Your task to perform on an android device: What's on the menu at Papa Murphy's? Image 0: 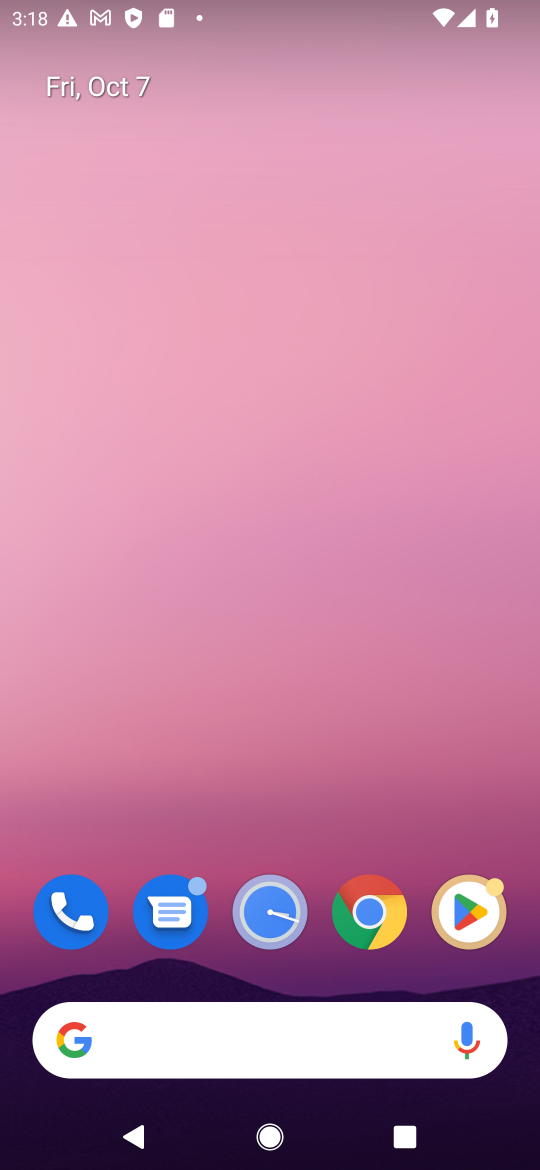
Step 0: drag from (250, 960) to (270, 271)
Your task to perform on an android device: What's on the menu at Papa Murphy's? Image 1: 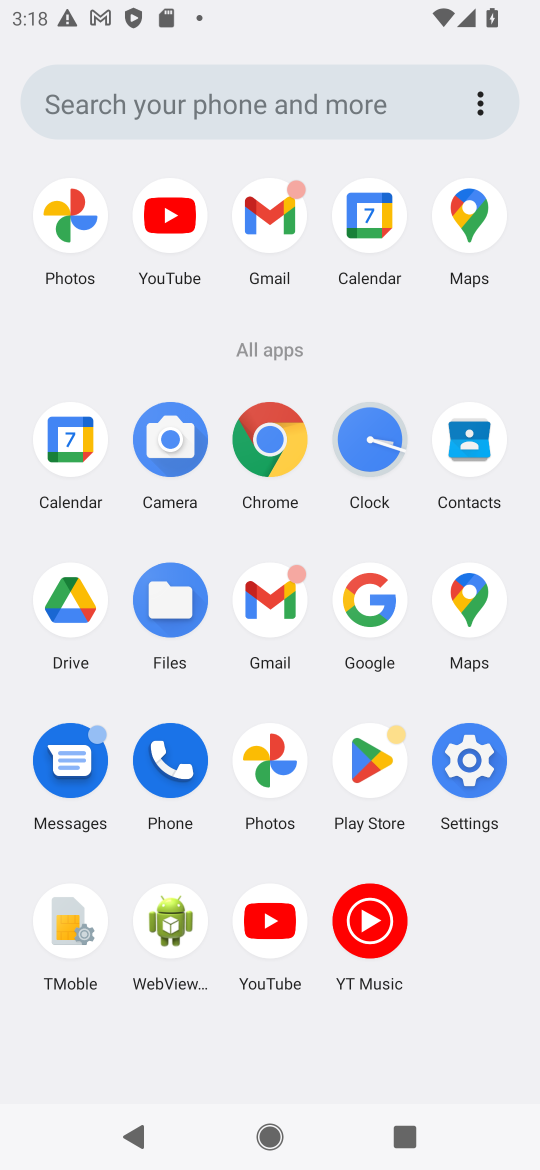
Step 1: click (375, 575)
Your task to perform on an android device: What's on the menu at Papa Murphy's? Image 2: 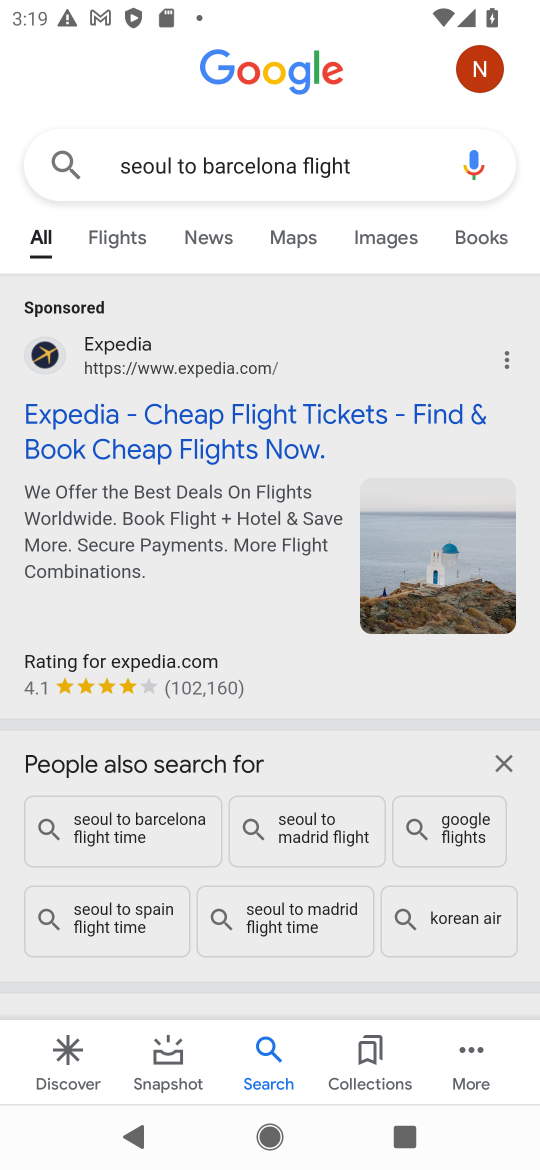
Step 2: click (368, 168)
Your task to perform on an android device: What's on the menu at Papa Murphy's? Image 3: 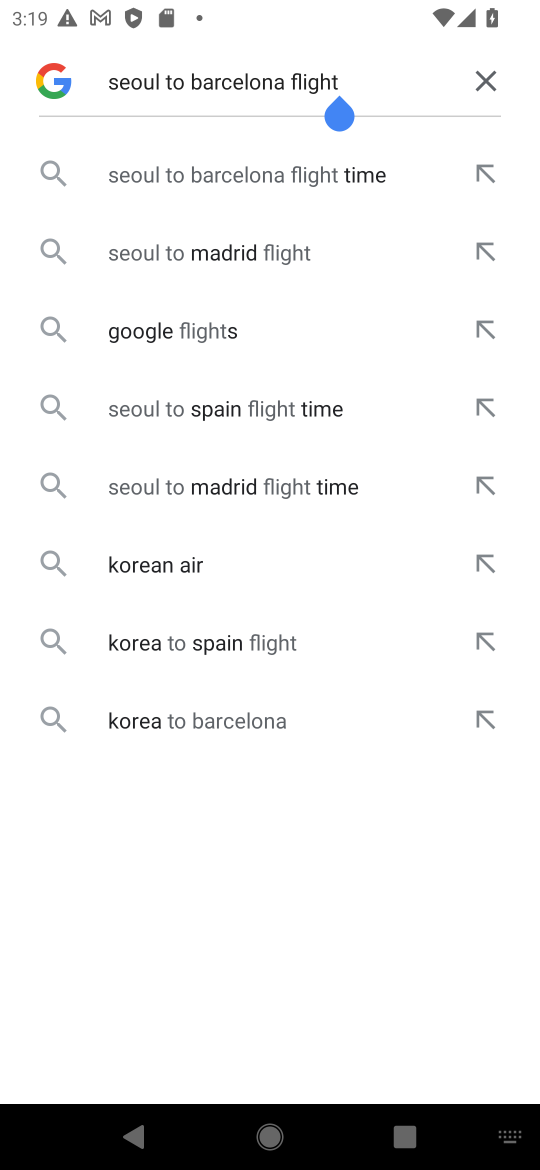
Step 3: click (477, 68)
Your task to perform on an android device: What's on the menu at Papa Murphy's? Image 4: 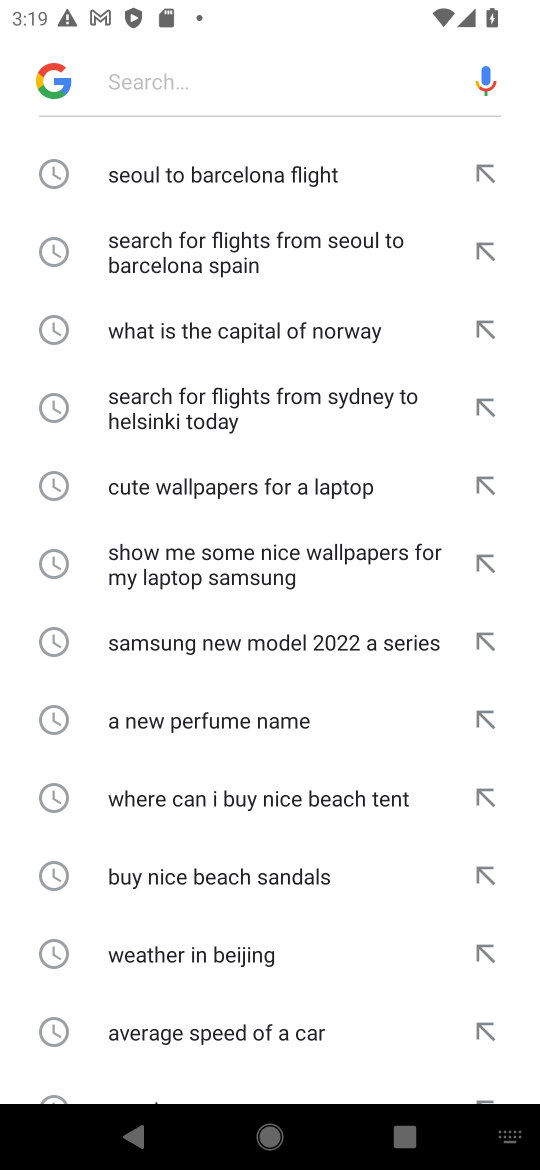
Step 4: click (157, 51)
Your task to perform on an android device: What's on the menu at Papa Murphy's? Image 5: 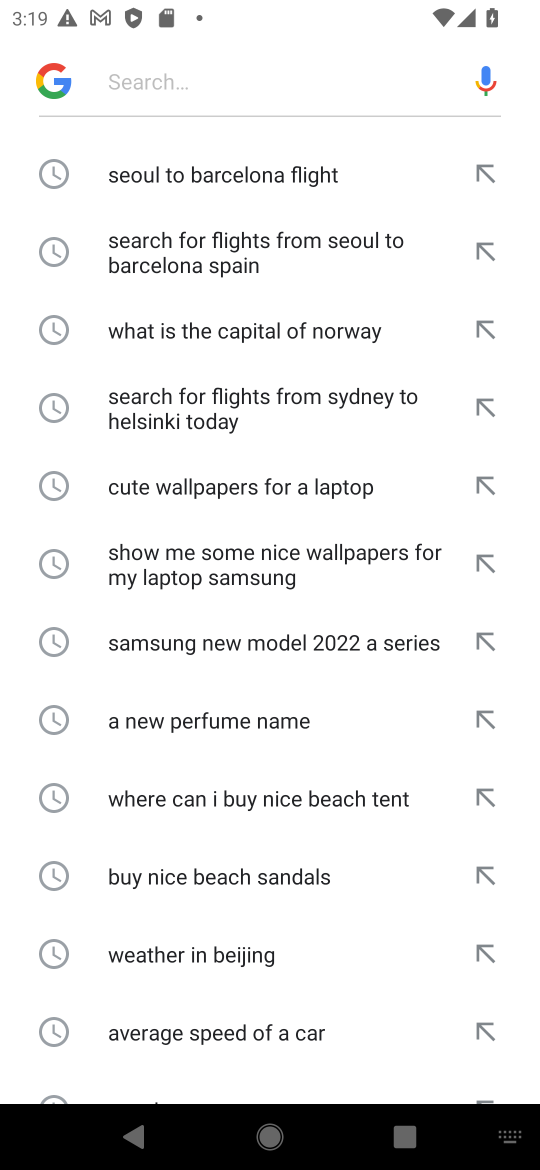
Step 5: type "What's on the menu at Papa Murphy's? "
Your task to perform on an android device: What's on the menu at Papa Murphy's? Image 6: 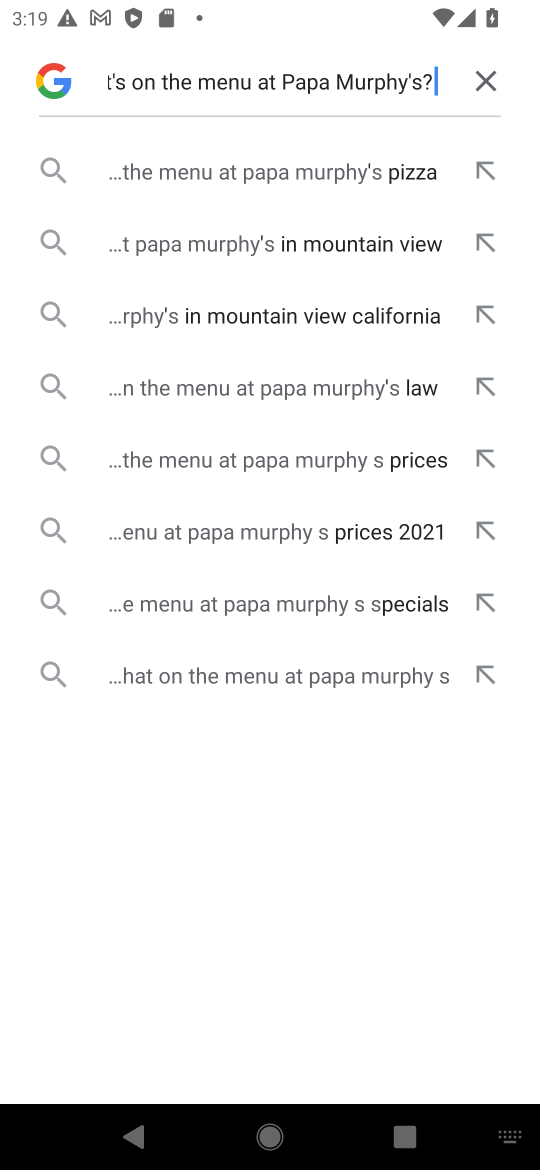
Step 6: drag from (232, 231) to (516, 213)
Your task to perform on an android device: What's on the menu at Papa Murphy's? Image 7: 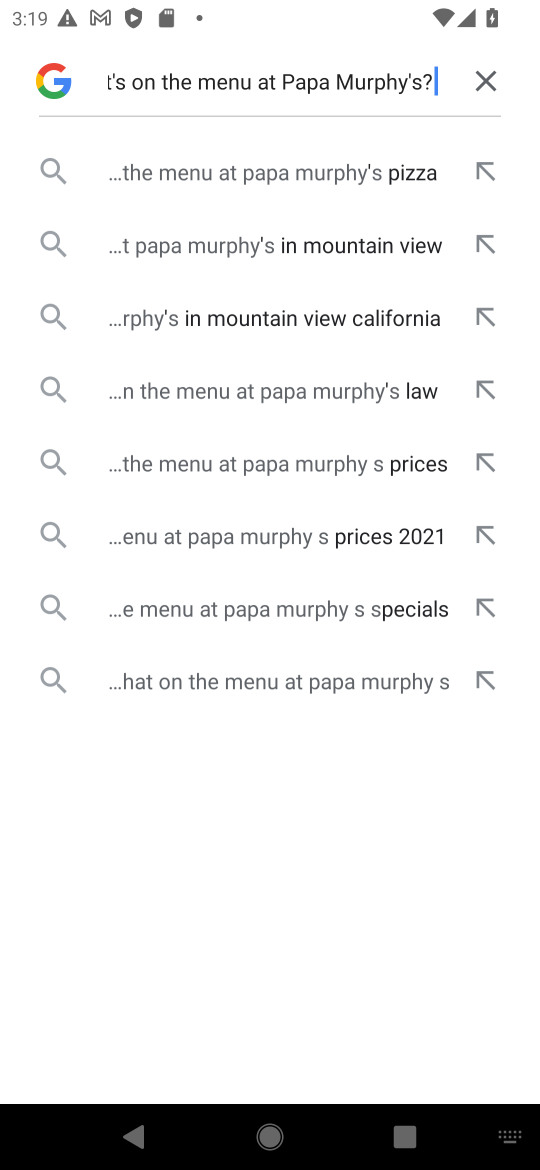
Step 7: click (446, 71)
Your task to perform on an android device: What's on the menu at Papa Murphy's? Image 8: 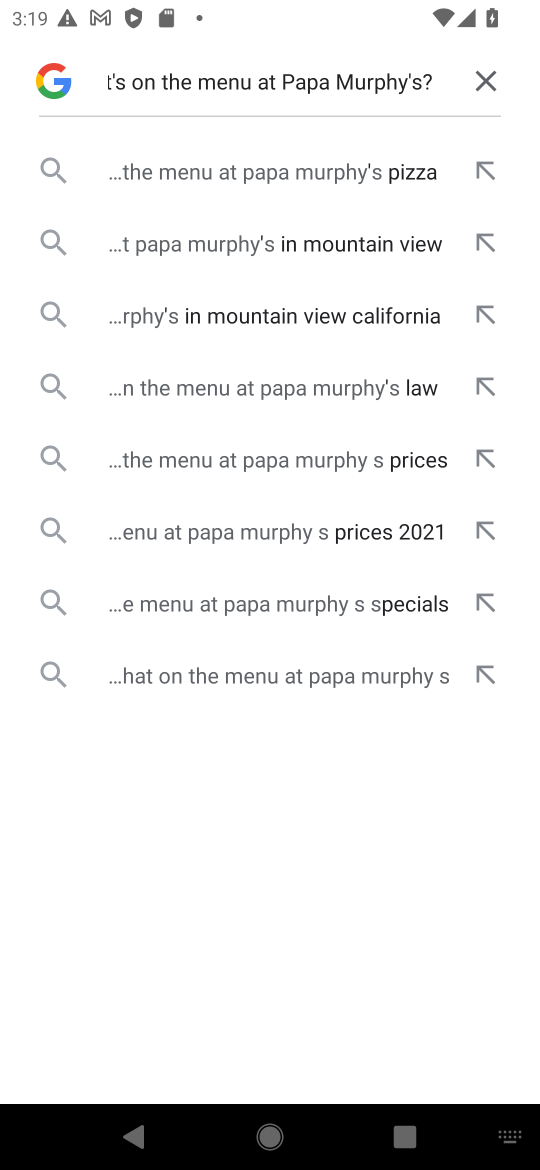
Step 8: click (434, 83)
Your task to perform on an android device: What's on the menu at Papa Murphy's? Image 9: 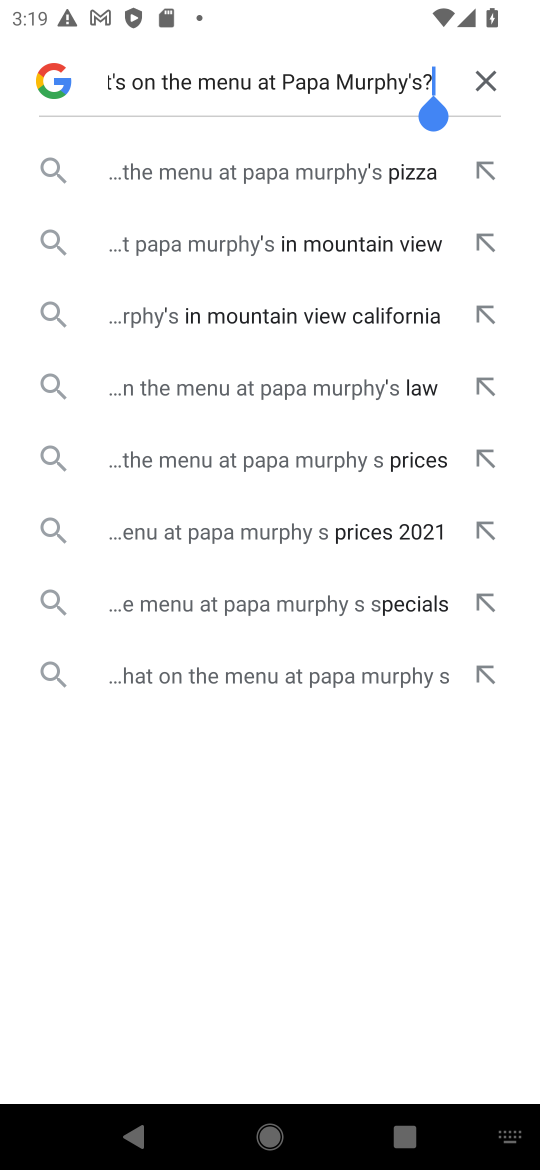
Step 9: click (466, 80)
Your task to perform on an android device: What's on the menu at Papa Murphy's? Image 10: 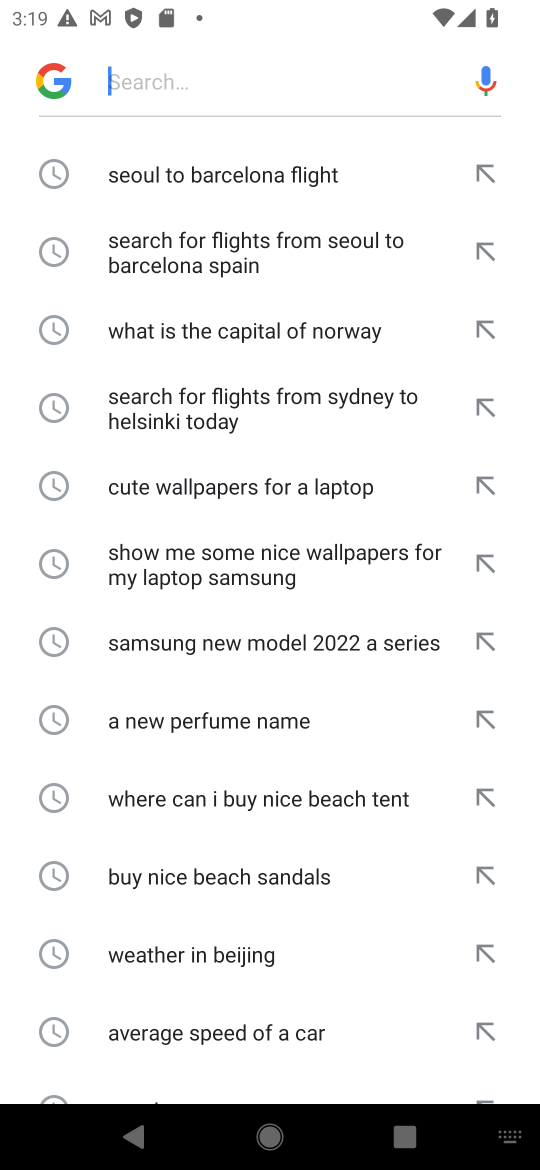
Step 10: click (298, 91)
Your task to perform on an android device: What's on the menu at Papa Murphy's? Image 11: 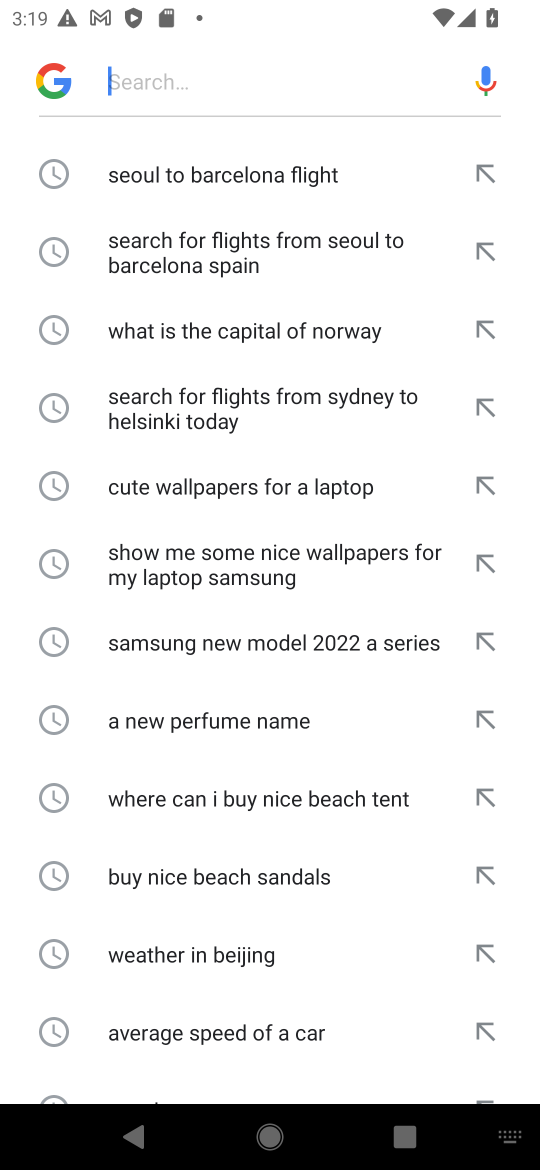
Step 11: type "What's on the menu at Papa Murphy's "
Your task to perform on an android device: What's on the menu at Papa Murphy's? Image 12: 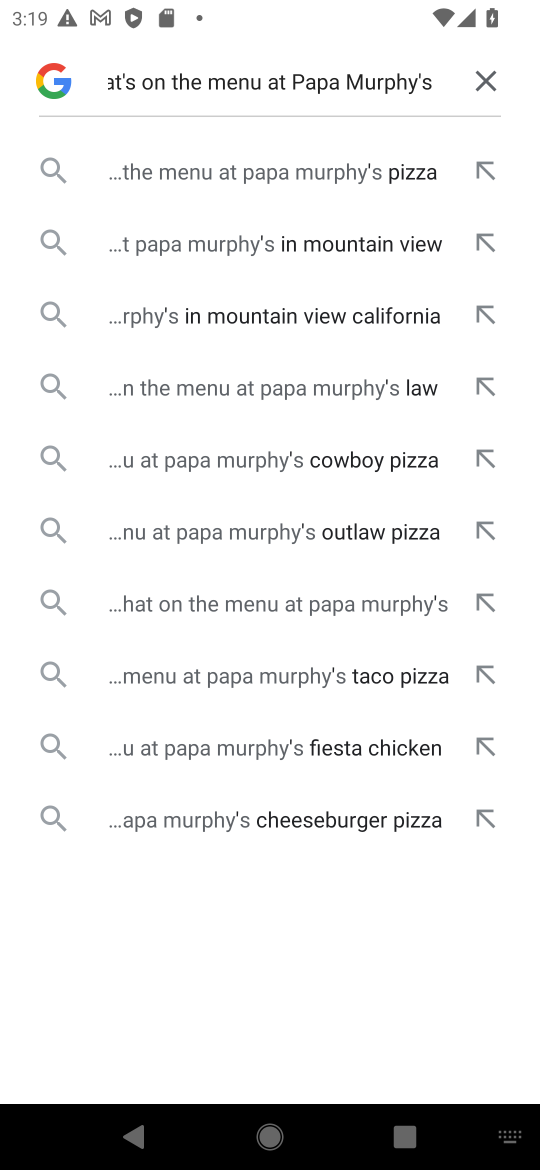
Step 12: click (219, 167)
Your task to perform on an android device: What's on the menu at Papa Murphy's? Image 13: 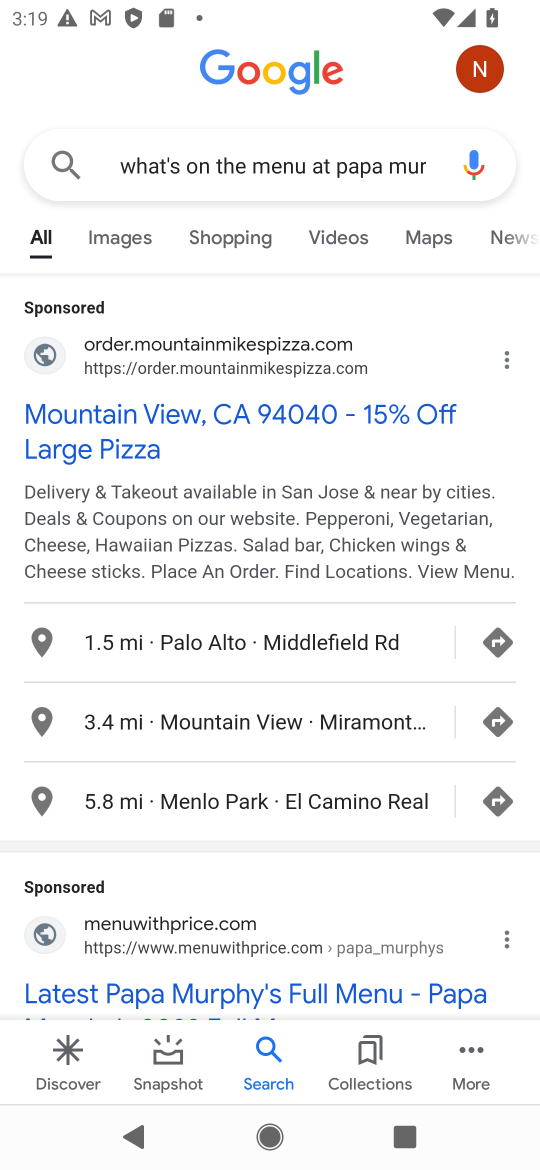
Step 13: drag from (166, 921) to (197, 645)
Your task to perform on an android device: What's on the menu at Papa Murphy's? Image 14: 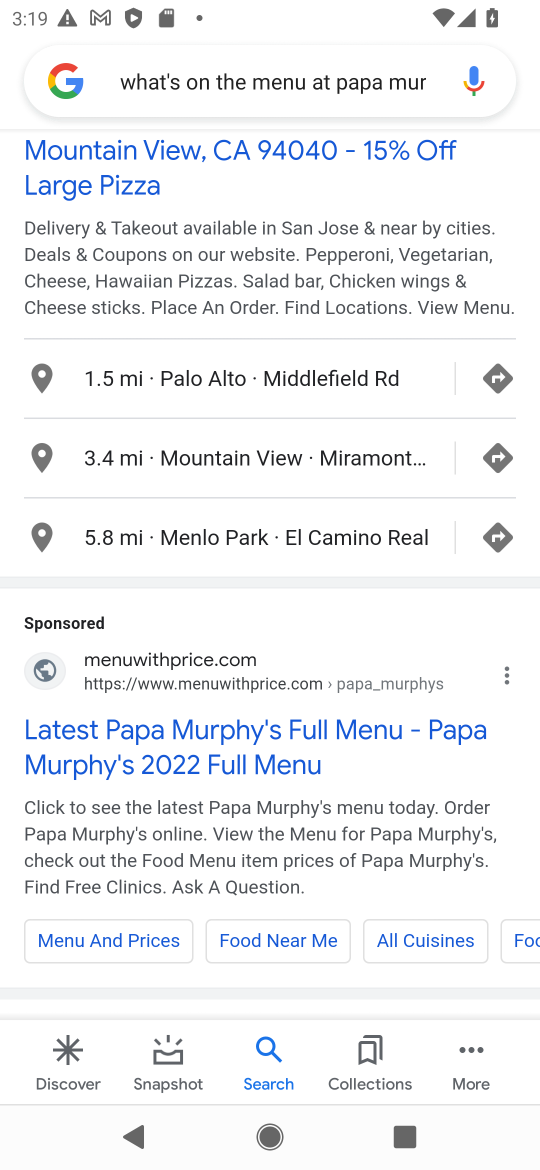
Step 14: click (188, 750)
Your task to perform on an android device: What's on the menu at Papa Murphy's? Image 15: 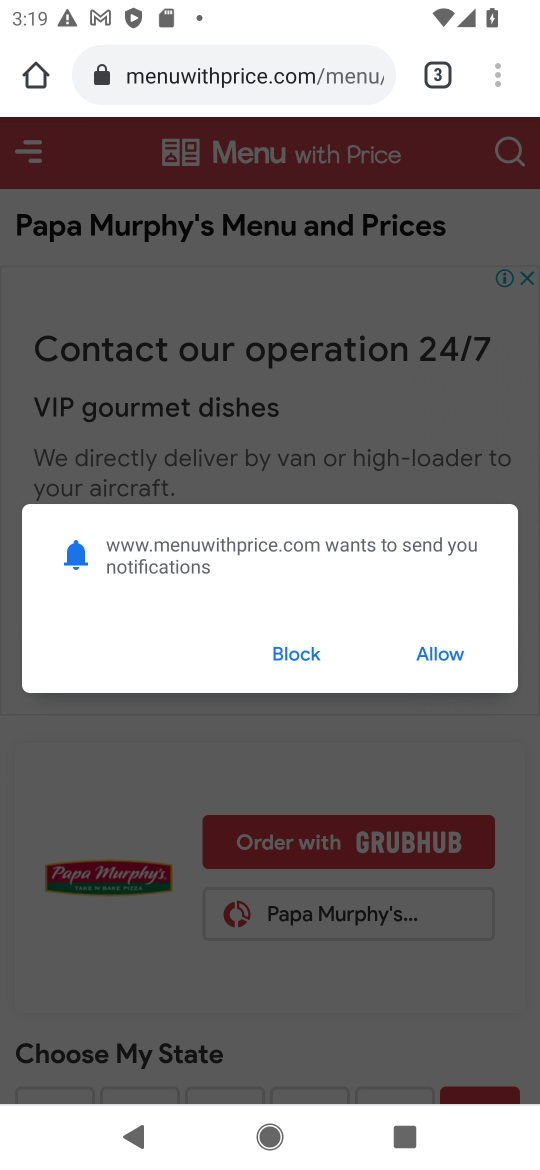
Step 15: drag from (160, 1054) to (293, 719)
Your task to perform on an android device: What's on the menu at Papa Murphy's? Image 16: 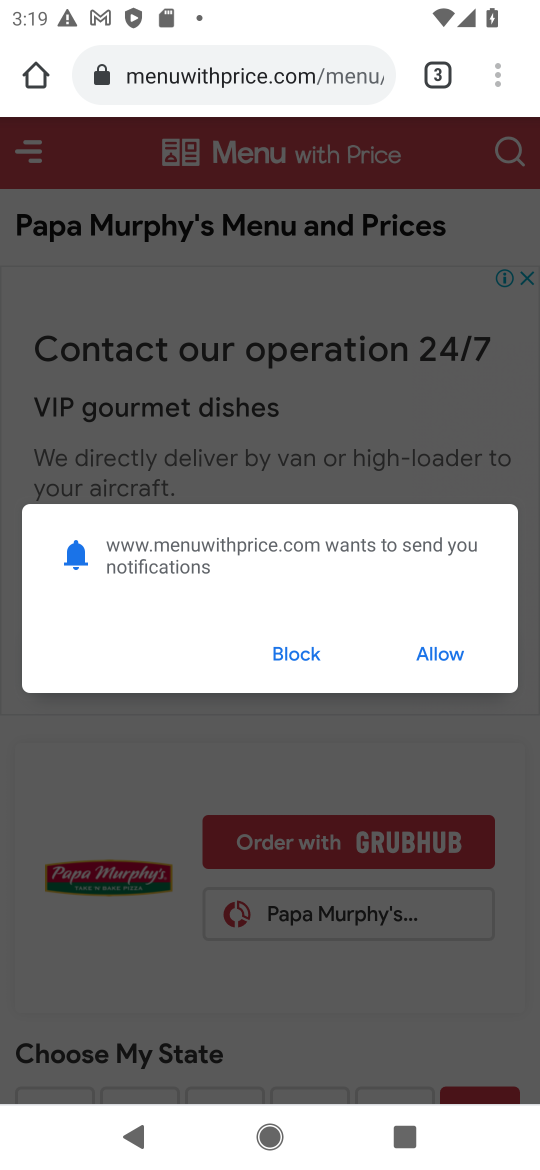
Step 16: click (450, 643)
Your task to perform on an android device: What's on the menu at Papa Murphy's? Image 17: 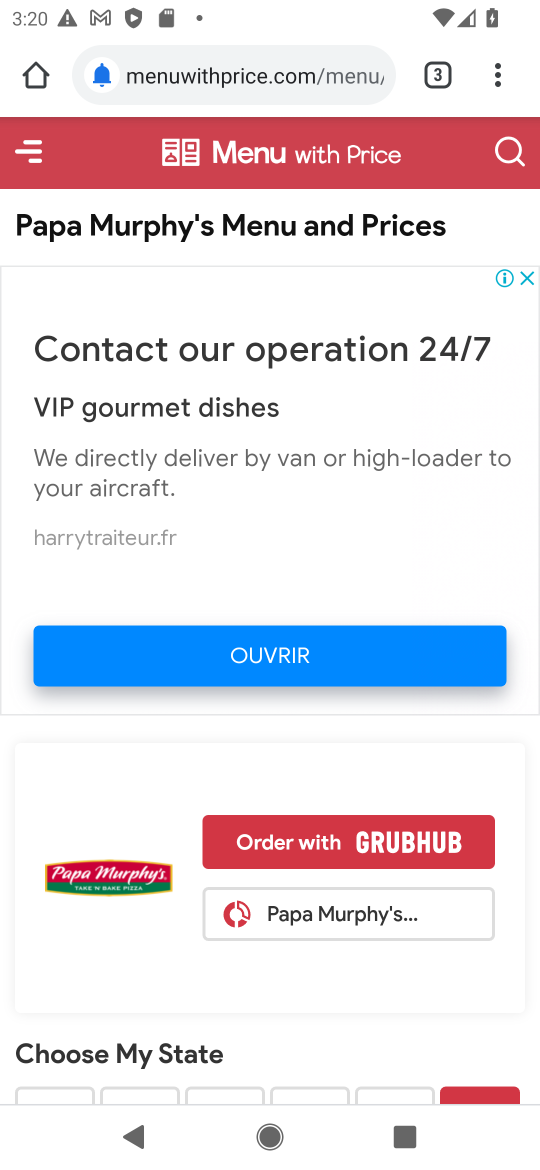
Step 17: drag from (360, 939) to (509, 326)
Your task to perform on an android device: What's on the menu at Papa Murphy's? Image 18: 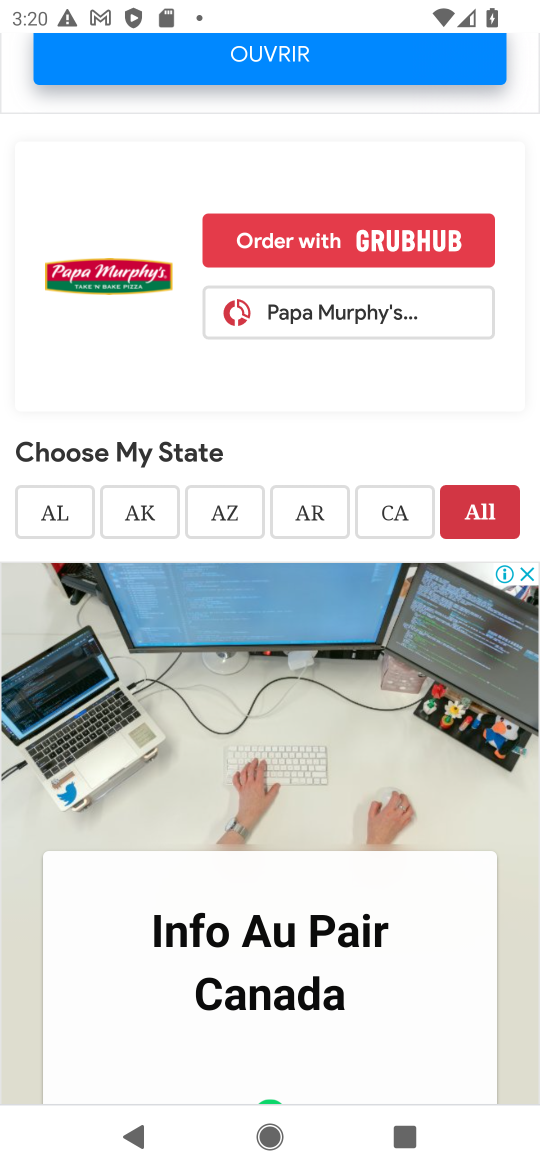
Step 18: drag from (170, 192) to (202, 735)
Your task to perform on an android device: What's on the menu at Papa Murphy's? Image 19: 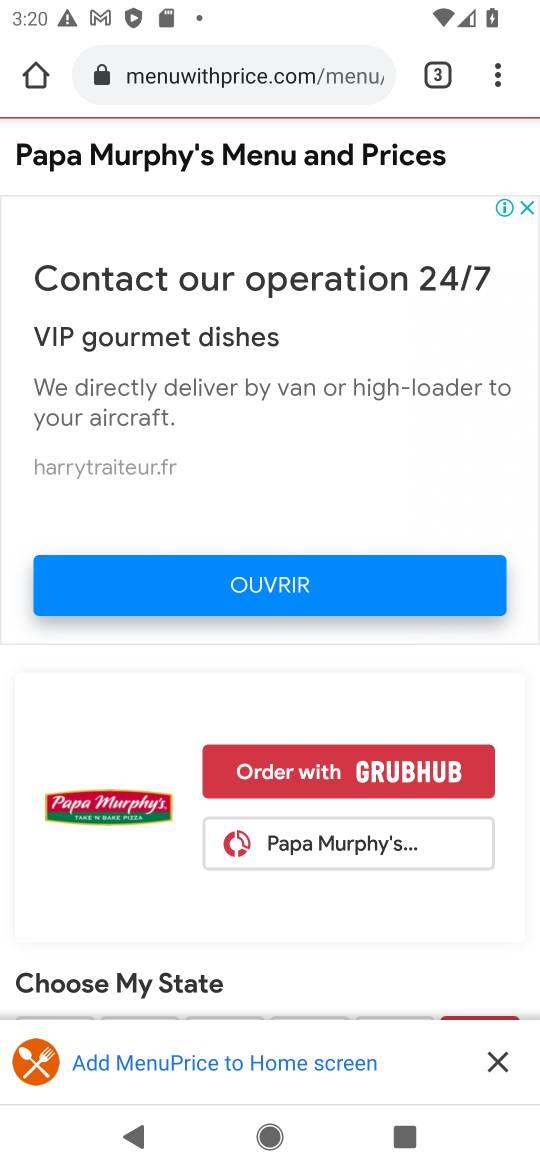
Step 19: click (297, 577)
Your task to perform on an android device: What's on the menu at Papa Murphy's? Image 20: 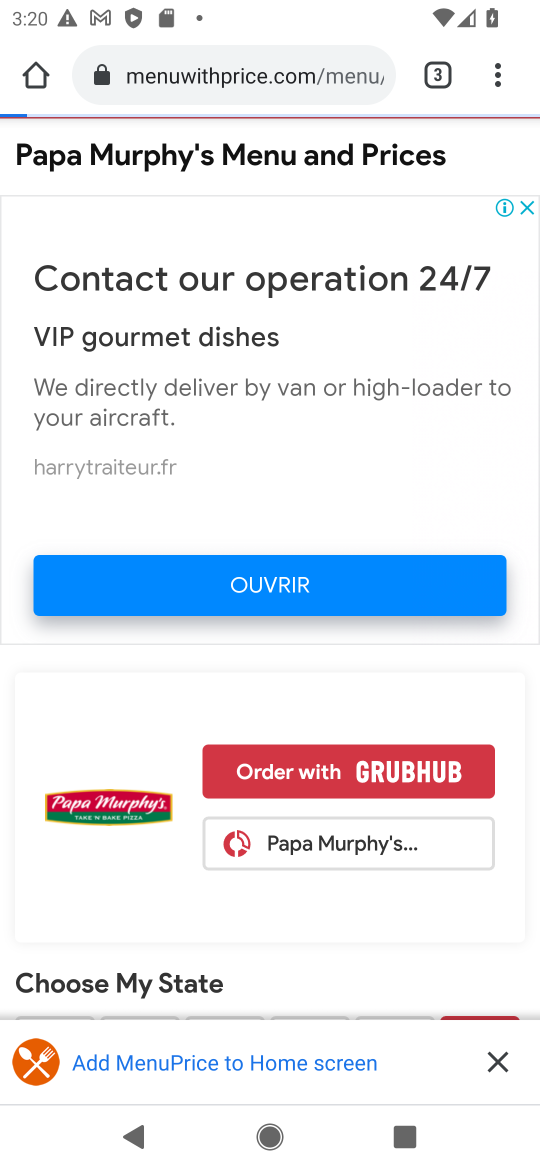
Step 20: click (500, 1066)
Your task to perform on an android device: What's on the menu at Papa Murphy's? Image 21: 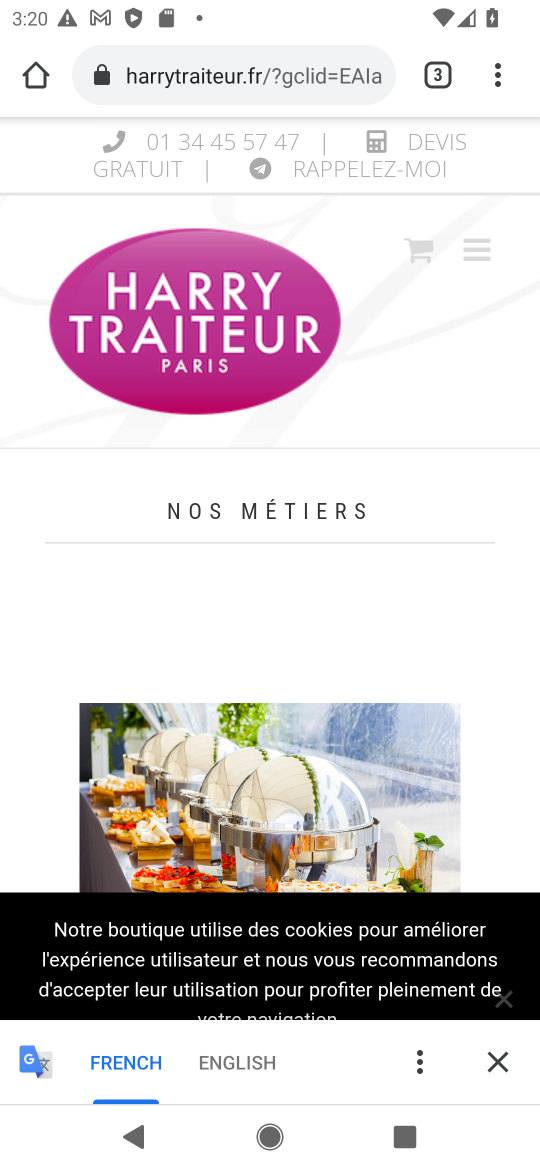
Step 21: drag from (215, 772) to (343, 188)
Your task to perform on an android device: What's on the menu at Papa Murphy's? Image 22: 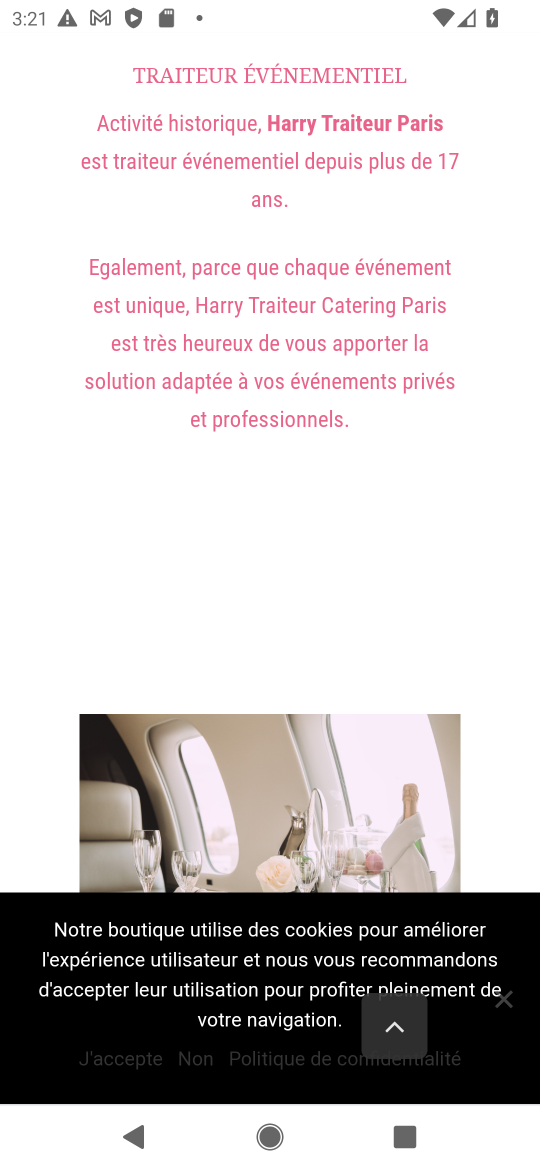
Step 22: press back button
Your task to perform on an android device: What's on the menu at Papa Murphy's? Image 23: 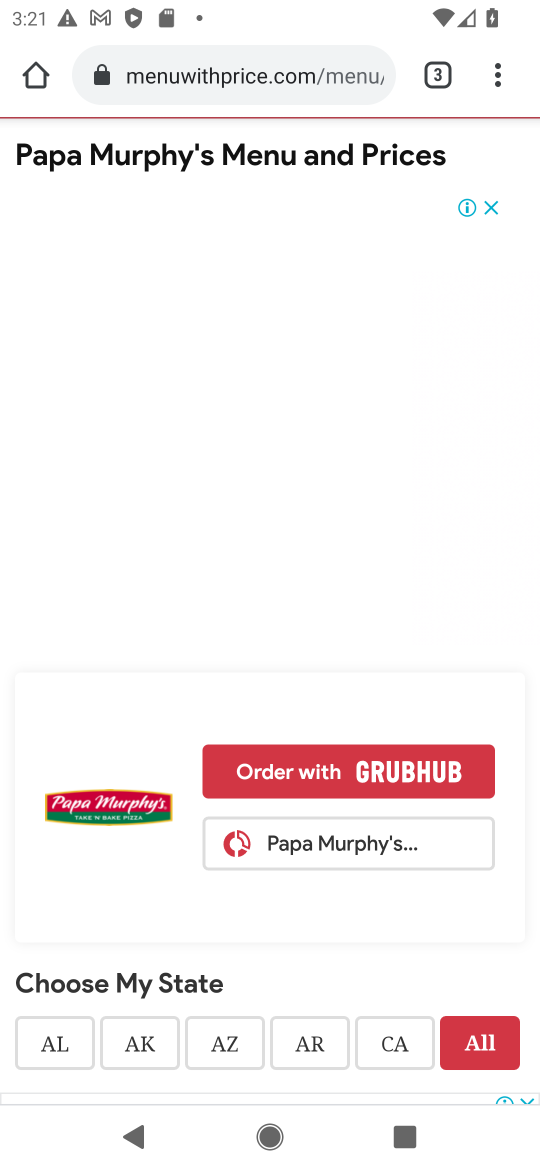
Step 23: drag from (247, 962) to (247, 363)
Your task to perform on an android device: What's on the menu at Papa Murphy's? Image 24: 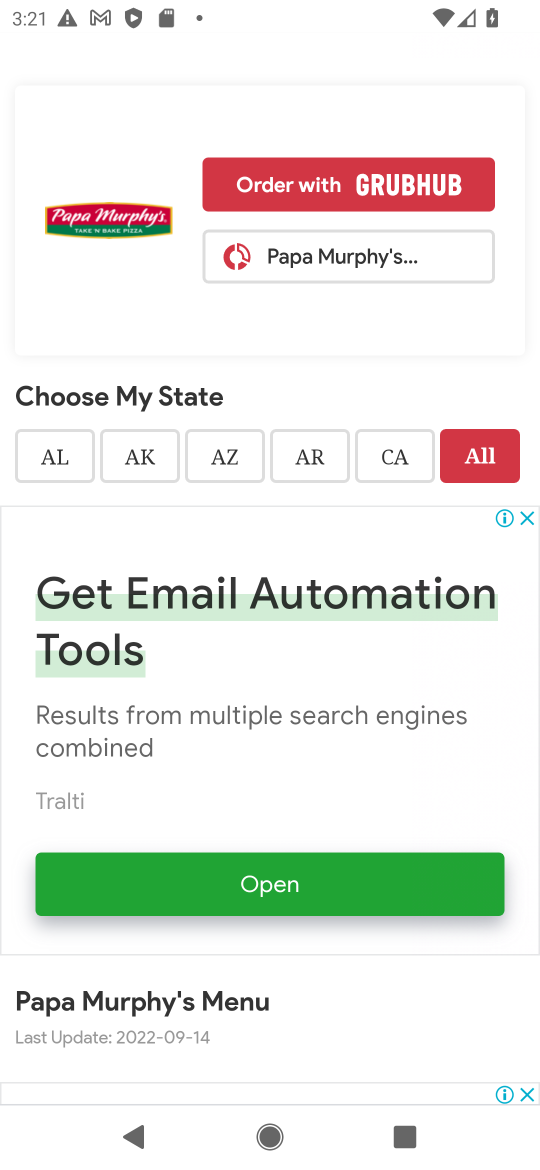
Step 24: click (55, 444)
Your task to perform on an android device: What's on the menu at Papa Murphy's? Image 25: 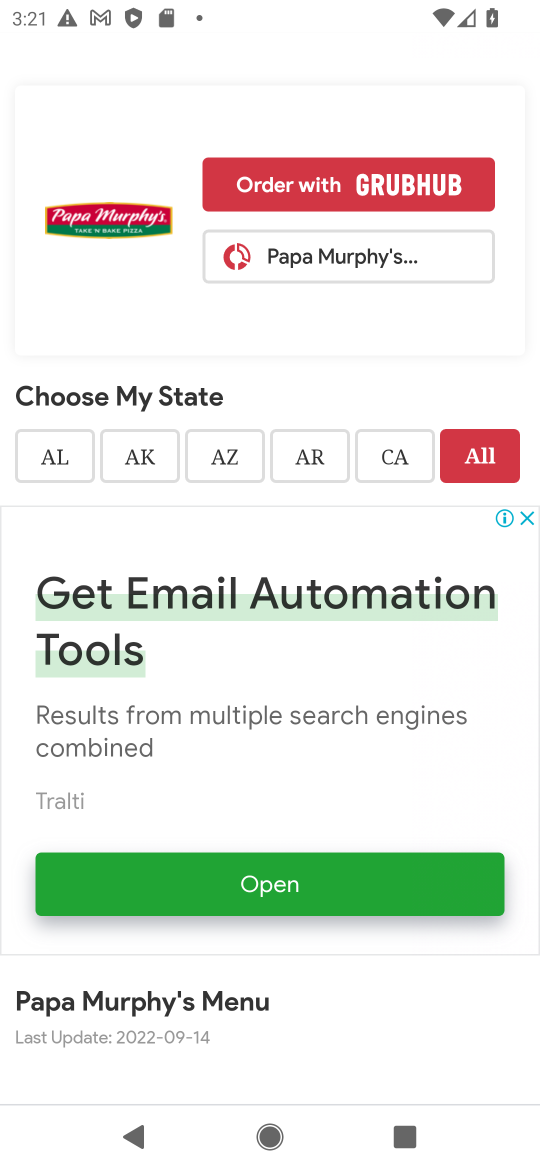
Step 25: click (481, 445)
Your task to perform on an android device: What's on the menu at Papa Murphy's? Image 26: 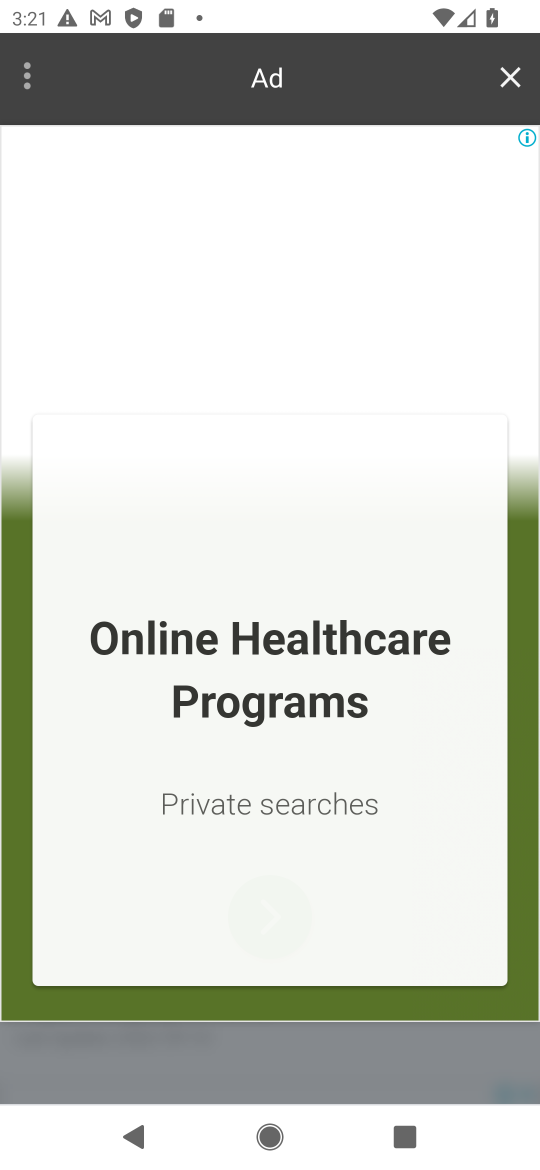
Step 26: drag from (355, 971) to (344, 371)
Your task to perform on an android device: What's on the menu at Papa Murphy's? Image 27: 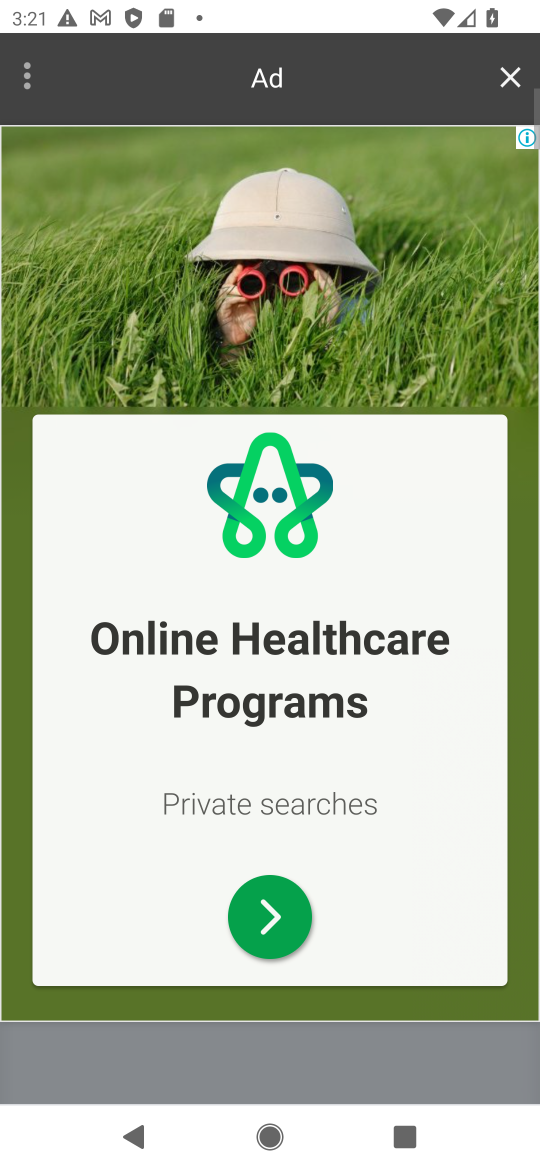
Step 27: drag from (371, 776) to (371, 431)
Your task to perform on an android device: What's on the menu at Papa Murphy's? Image 28: 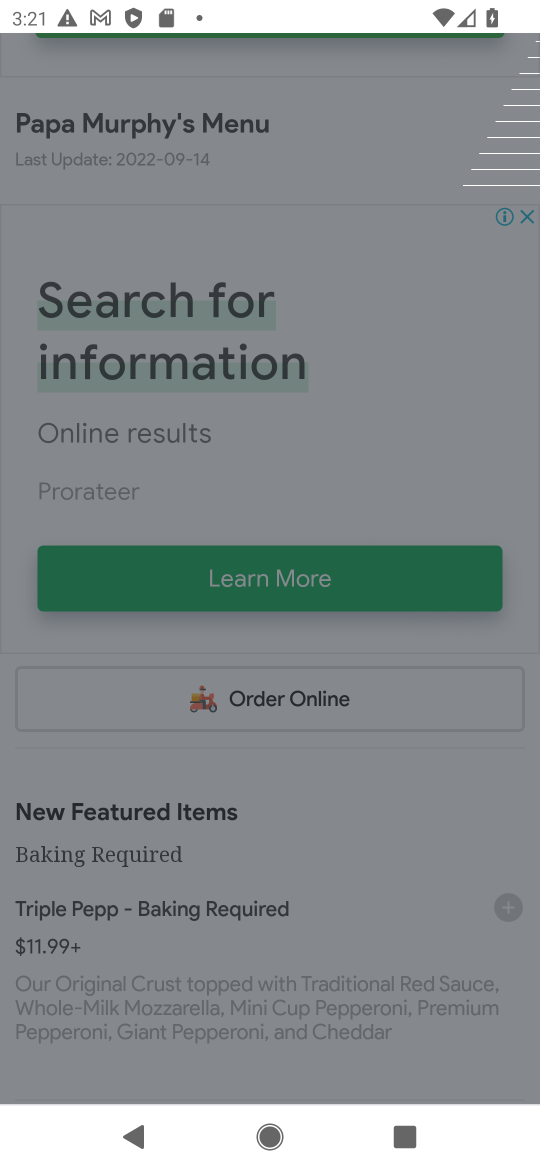
Step 28: click (378, 251)
Your task to perform on an android device: What's on the menu at Papa Murphy's? Image 29: 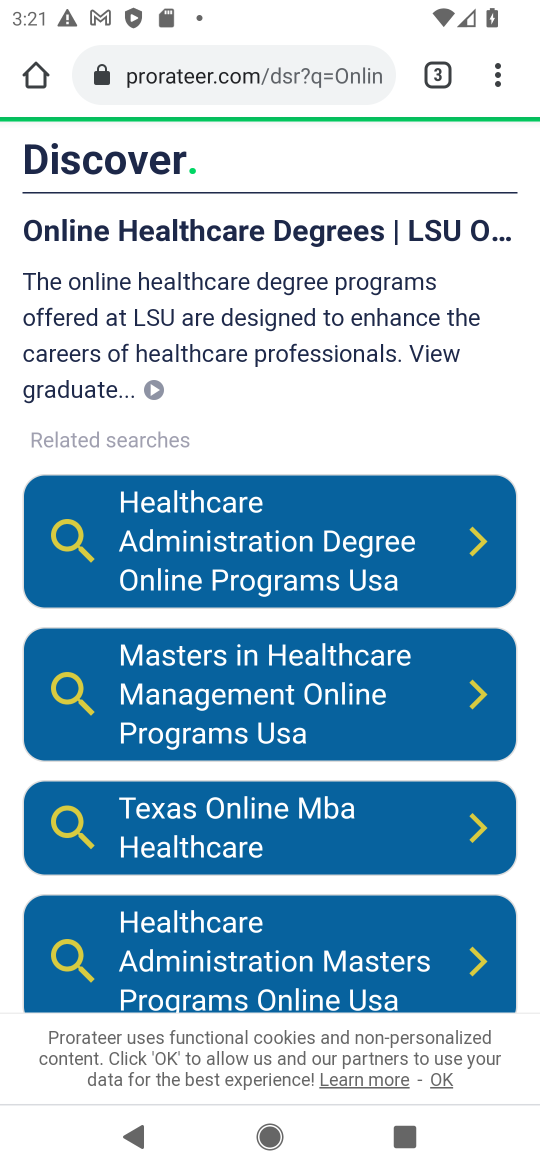
Step 29: task complete